Your task to perform on an android device: What's the news this morning? Image 0: 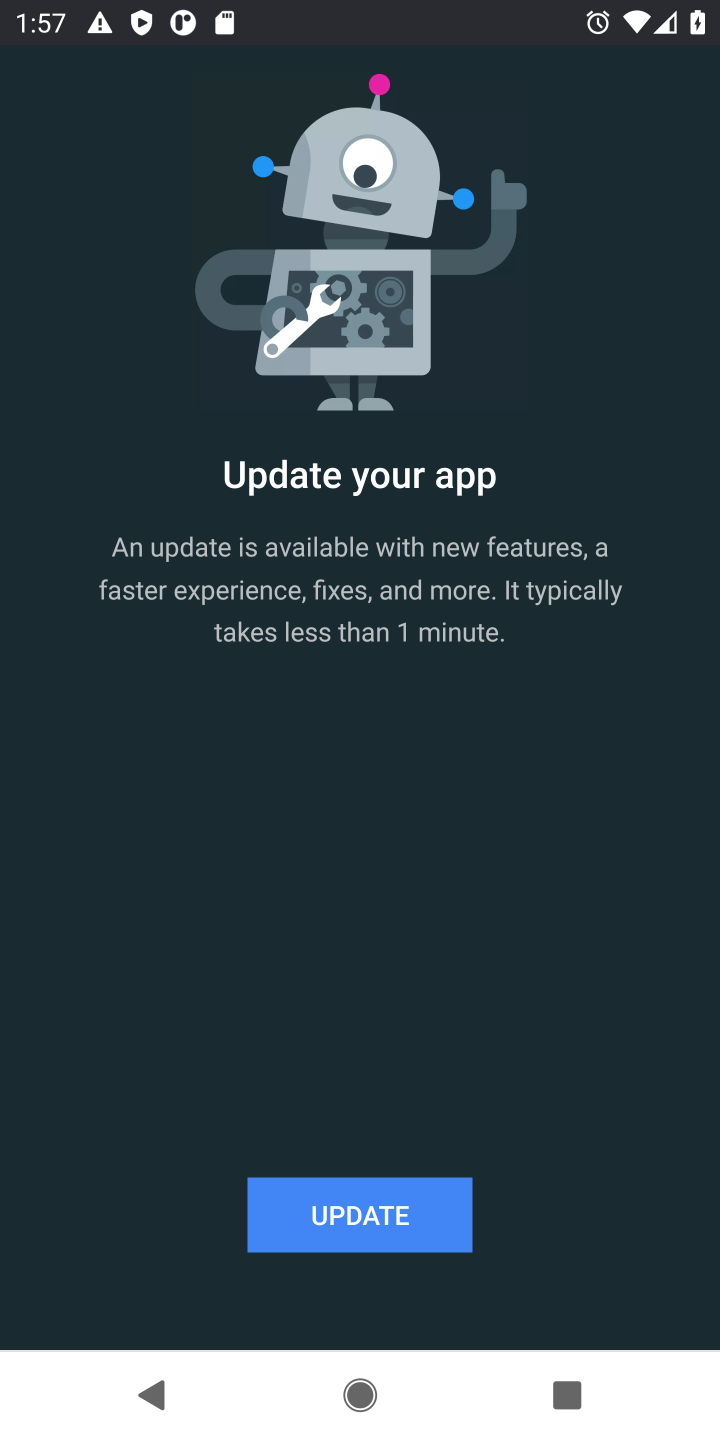
Step 0: press home button
Your task to perform on an android device: What's the news this morning? Image 1: 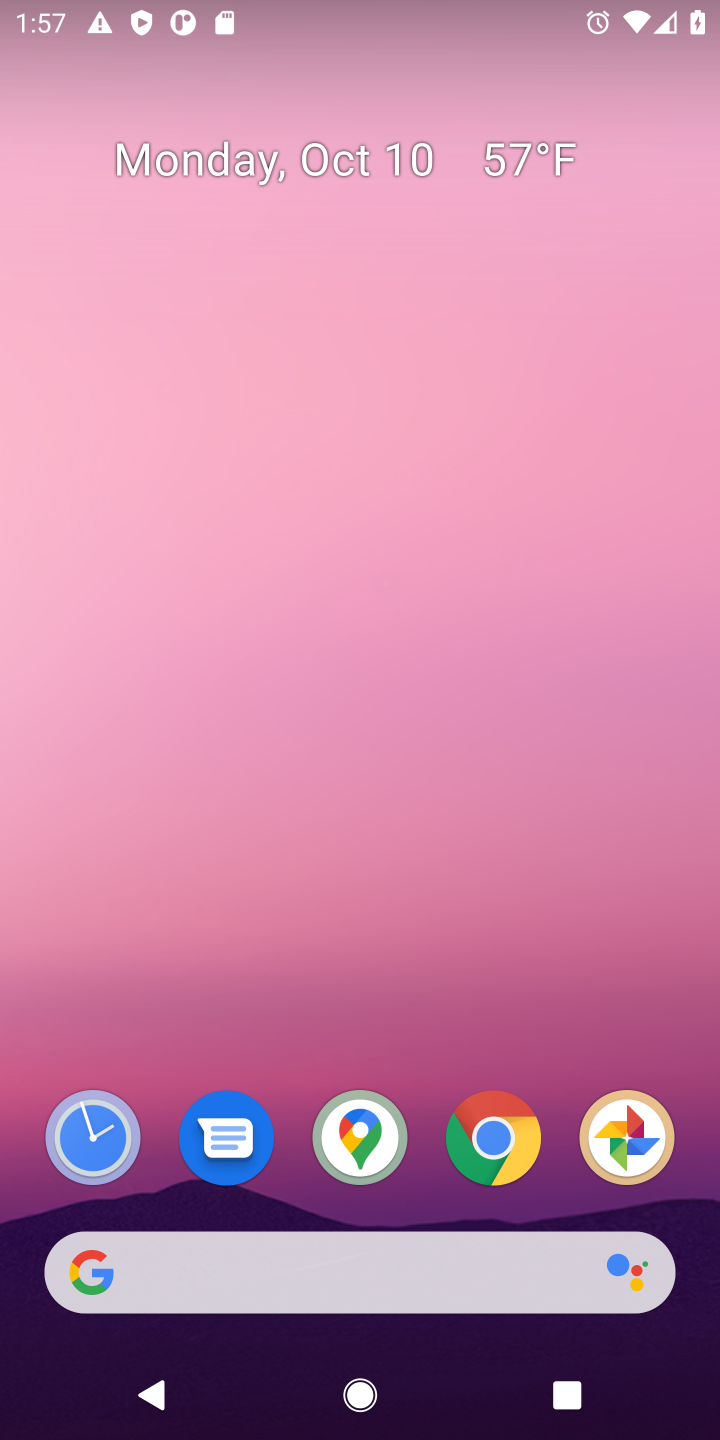
Step 1: click (293, 1247)
Your task to perform on an android device: What's the news this morning? Image 2: 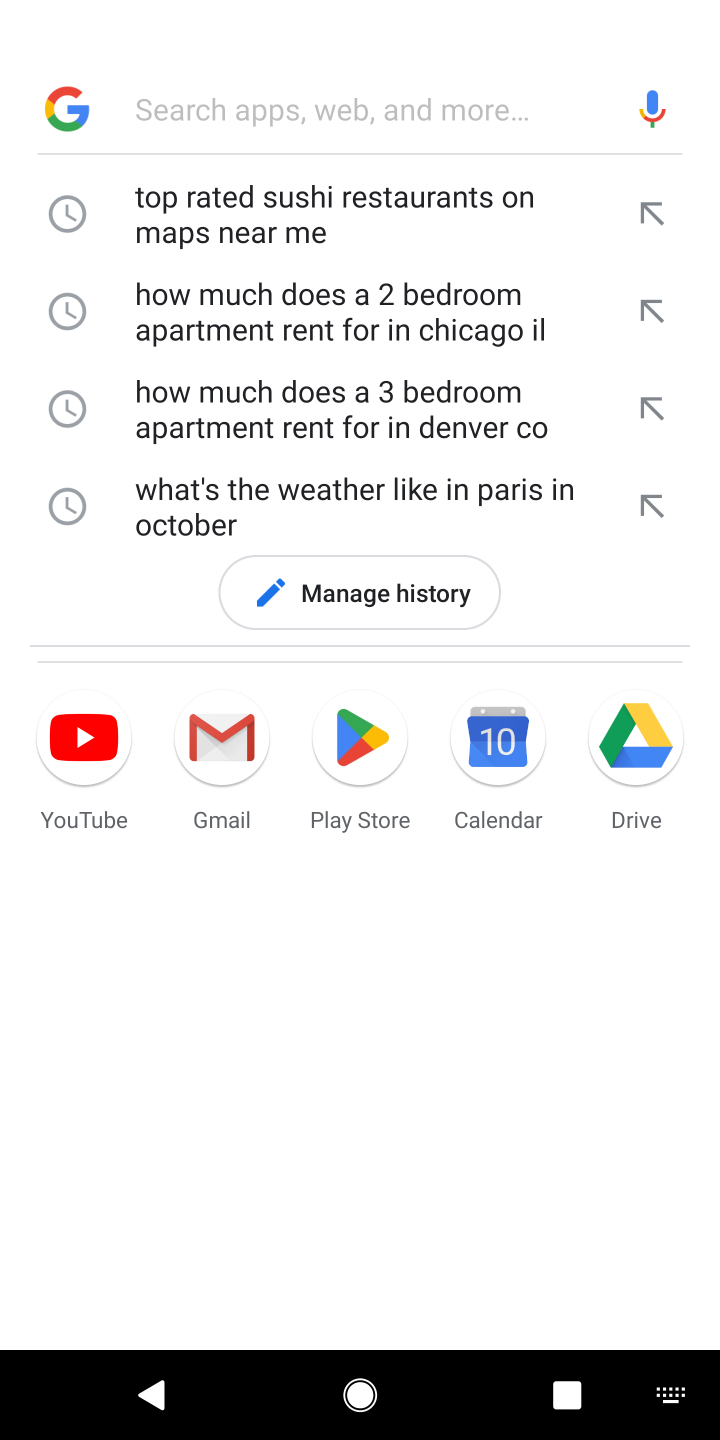
Step 2: type "whats the news this morning"
Your task to perform on an android device: What's the news this morning? Image 3: 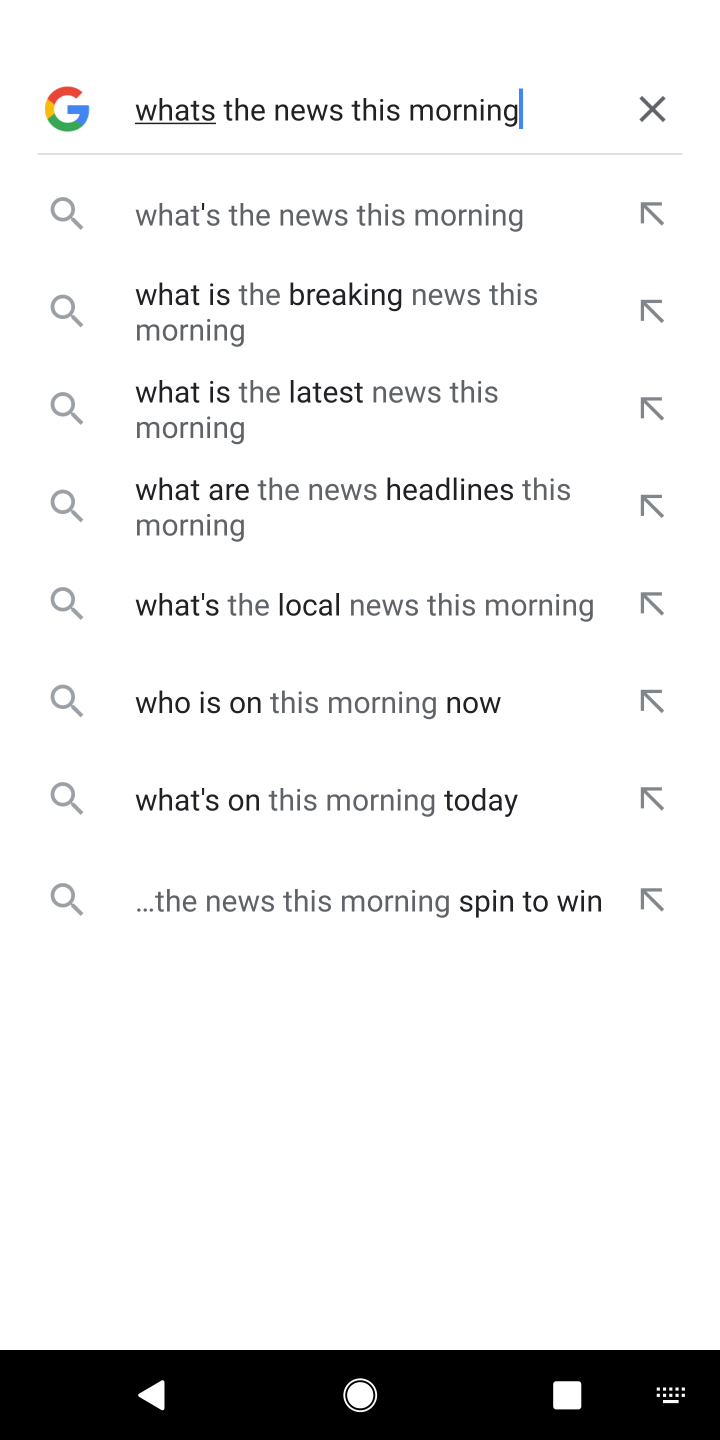
Step 3: click (410, 203)
Your task to perform on an android device: What's the news this morning? Image 4: 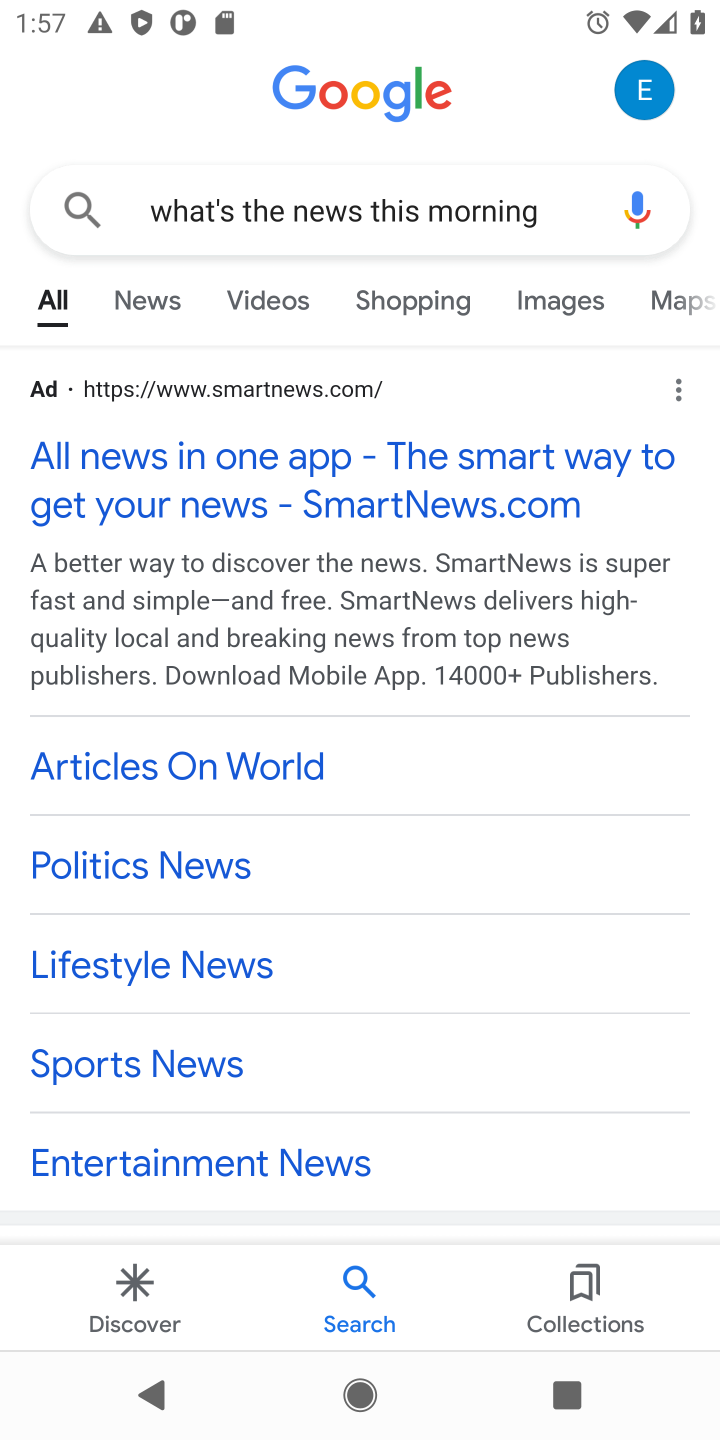
Step 4: click (339, 478)
Your task to perform on an android device: What's the news this morning? Image 5: 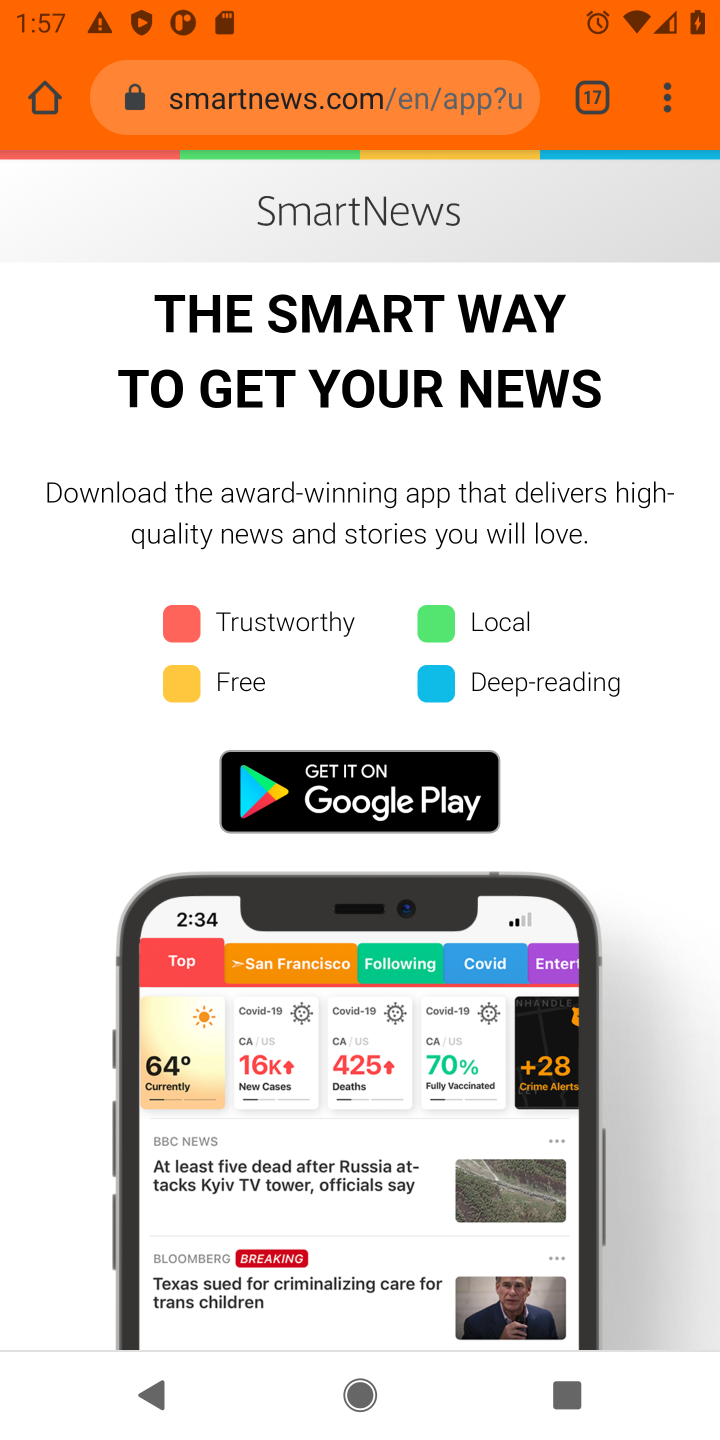
Step 5: task complete